Your task to perform on an android device: turn on notifications settings in the gmail app Image 0: 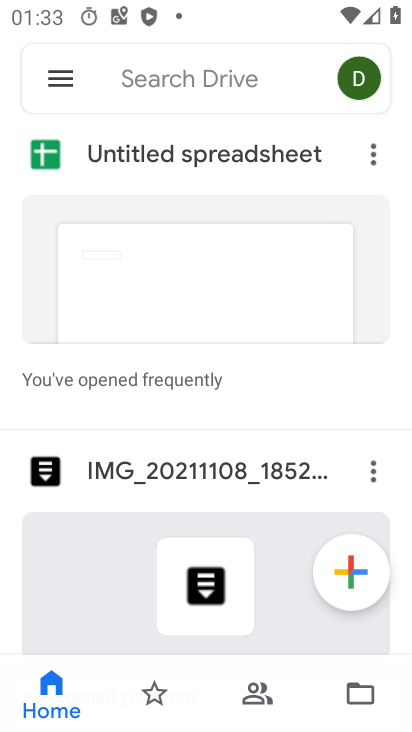
Step 0: press home button
Your task to perform on an android device: turn on notifications settings in the gmail app Image 1: 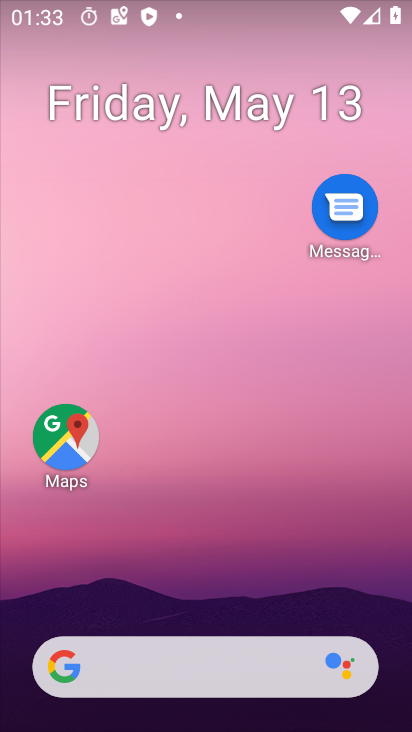
Step 1: drag from (310, 564) to (293, 36)
Your task to perform on an android device: turn on notifications settings in the gmail app Image 2: 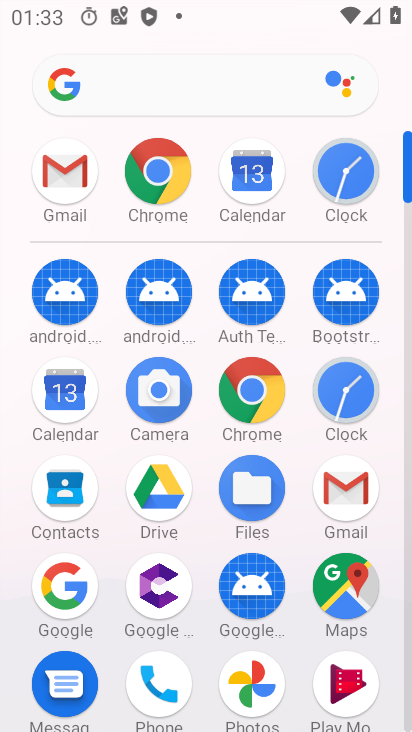
Step 2: click (340, 484)
Your task to perform on an android device: turn on notifications settings in the gmail app Image 3: 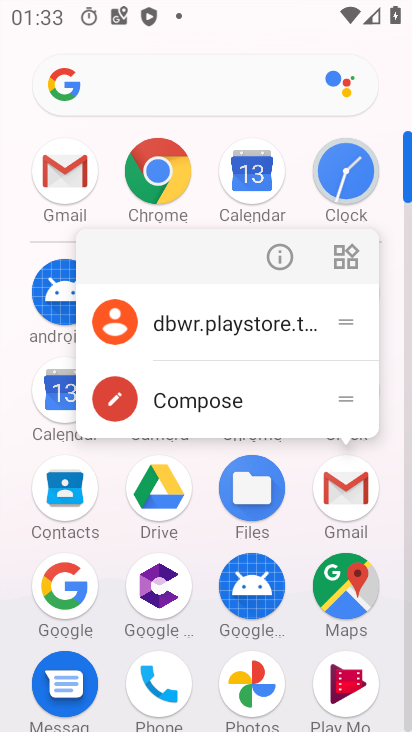
Step 3: click (272, 258)
Your task to perform on an android device: turn on notifications settings in the gmail app Image 4: 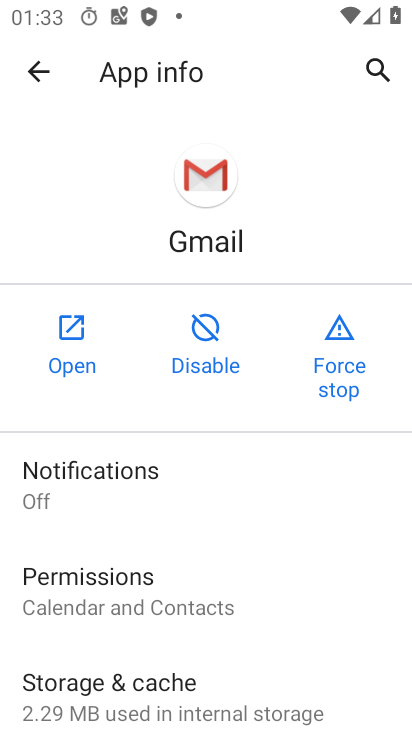
Step 4: click (108, 471)
Your task to perform on an android device: turn on notifications settings in the gmail app Image 5: 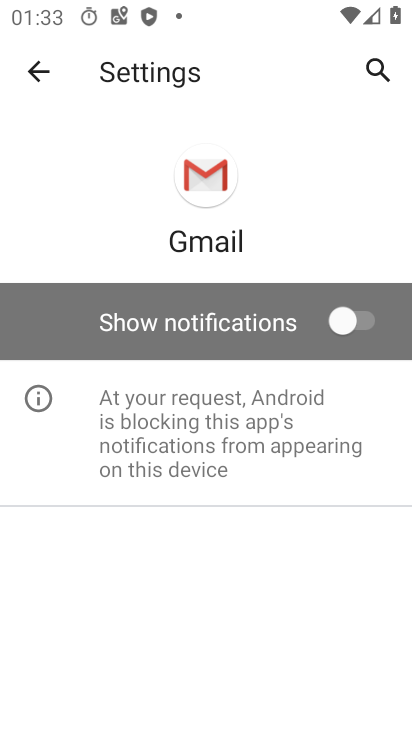
Step 5: click (333, 314)
Your task to perform on an android device: turn on notifications settings in the gmail app Image 6: 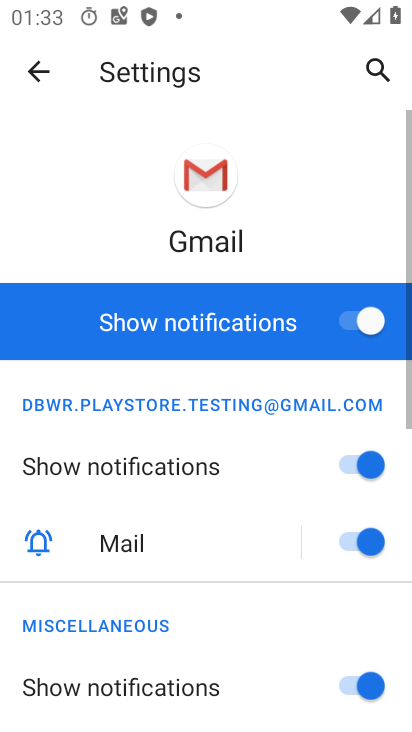
Step 6: task complete